Your task to perform on an android device: clear all cookies in the chrome app Image 0: 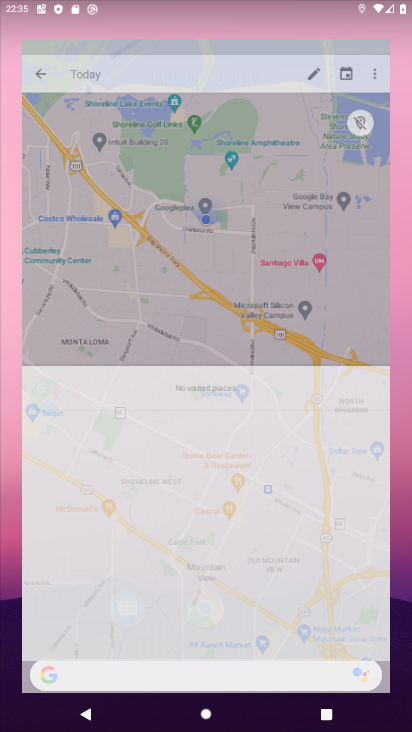
Step 0: click (40, 393)
Your task to perform on an android device: clear all cookies in the chrome app Image 1: 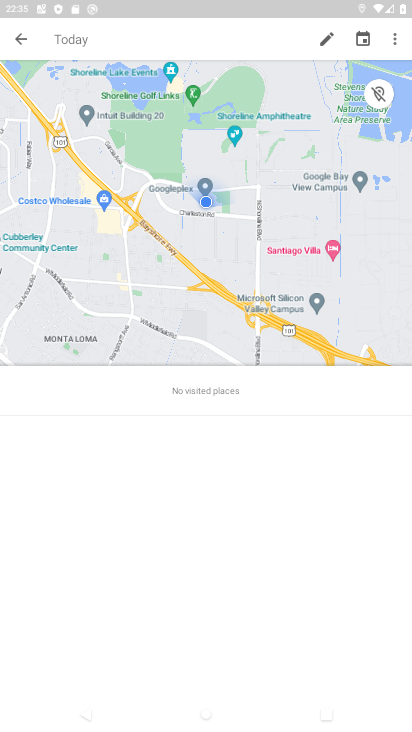
Step 1: task complete